Your task to perform on an android device: Open calendar and show me the second week of next month Image 0: 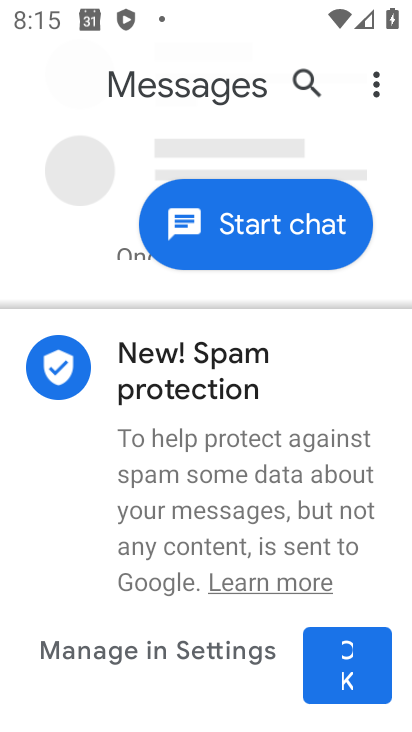
Step 0: press home button
Your task to perform on an android device: Open calendar and show me the second week of next month Image 1: 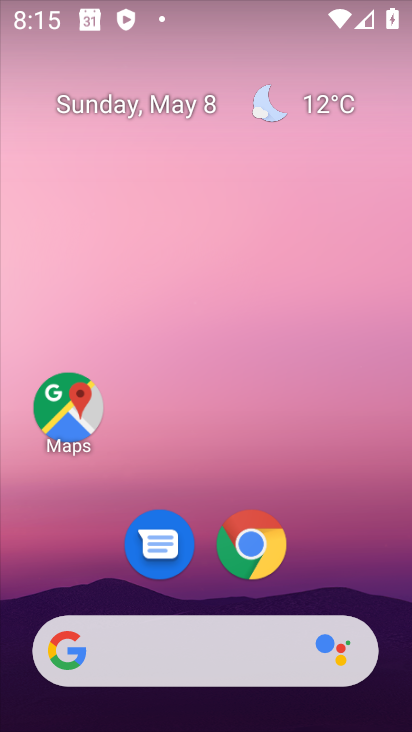
Step 1: drag from (338, 559) to (228, 89)
Your task to perform on an android device: Open calendar and show me the second week of next month Image 2: 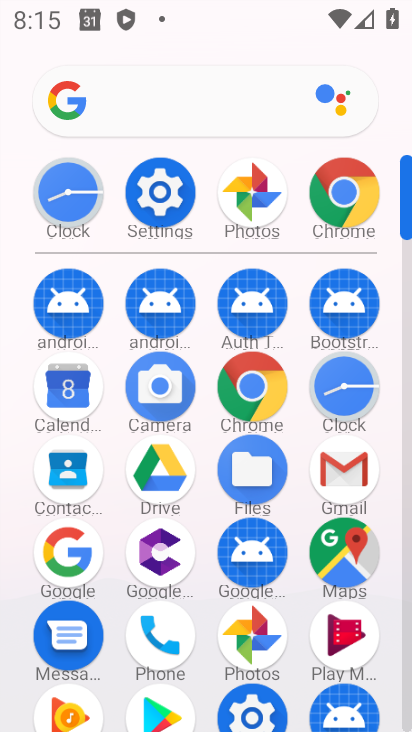
Step 2: click (67, 387)
Your task to perform on an android device: Open calendar and show me the second week of next month Image 3: 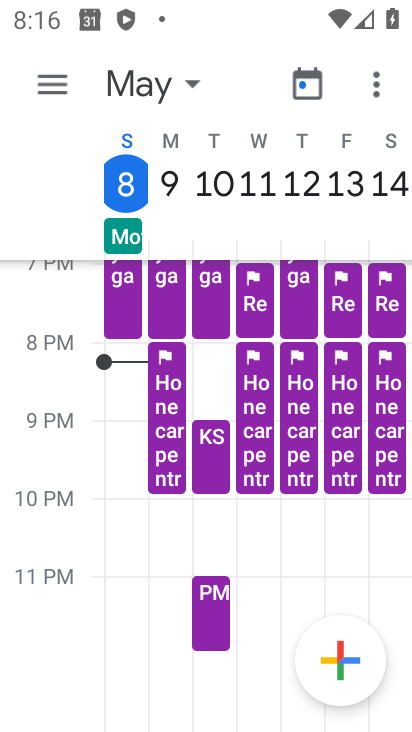
Step 3: click (188, 85)
Your task to perform on an android device: Open calendar and show me the second week of next month Image 4: 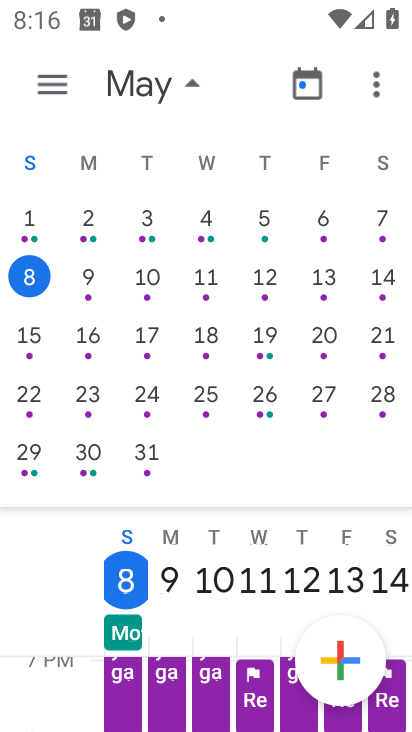
Step 4: drag from (348, 328) to (1, 368)
Your task to perform on an android device: Open calendar and show me the second week of next month Image 5: 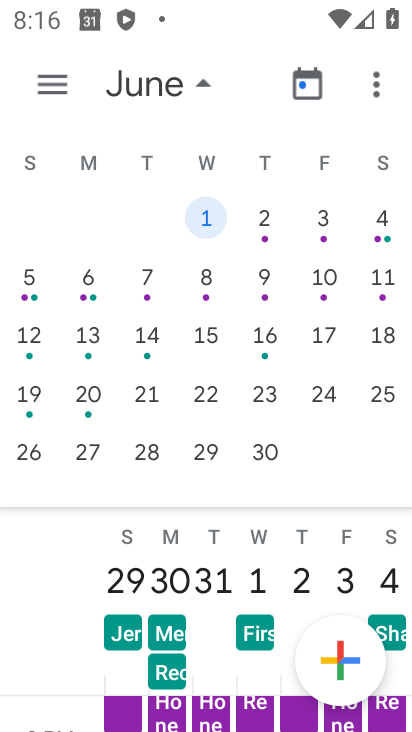
Step 5: click (207, 282)
Your task to perform on an android device: Open calendar and show me the second week of next month Image 6: 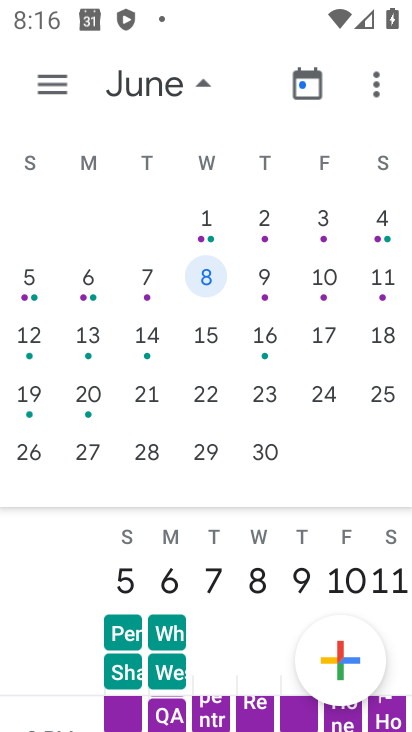
Step 6: task complete